Your task to perform on an android device: Open notification settings Image 0: 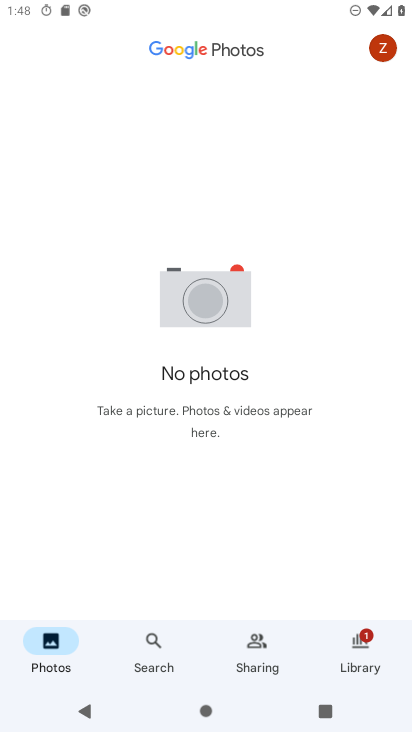
Step 0: press home button
Your task to perform on an android device: Open notification settings Image 1: 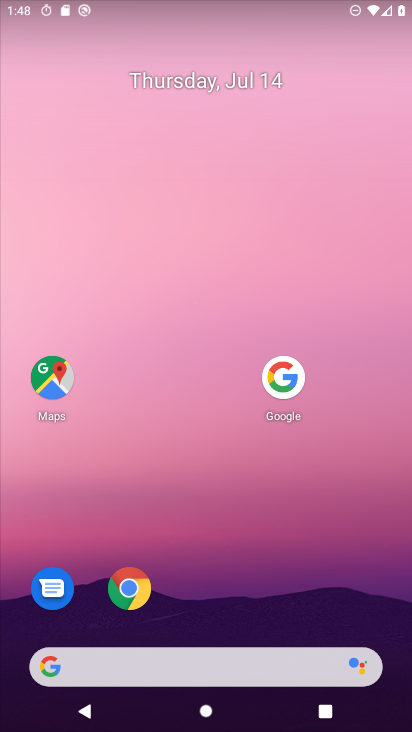
Step 1: drag from (220, 671) to (278, 97)
Your task to perform on an android device: Open notification settings Image 2: 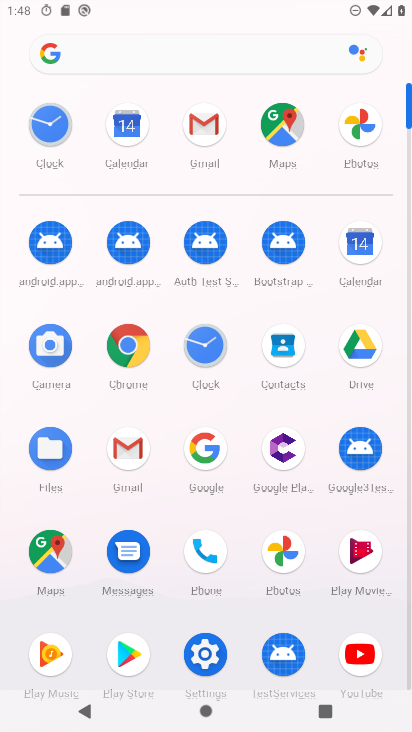
Step 2: click (205, 657)
Your task to perform on an android device: Open notification settings Image 3: 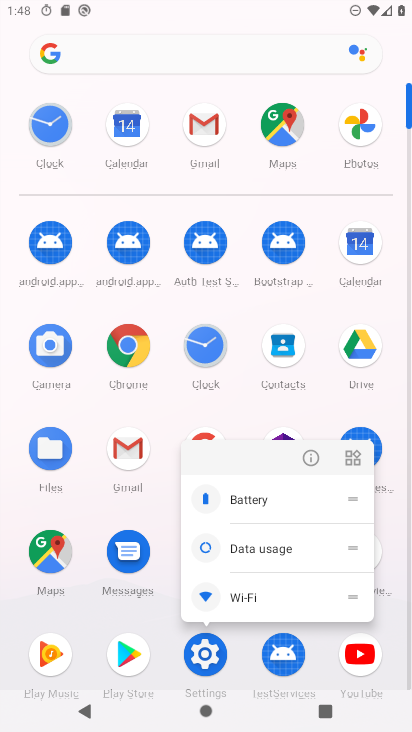
Step 3: click (205, 657)
Your task to perform on an android device: Open notification settings Image 4: 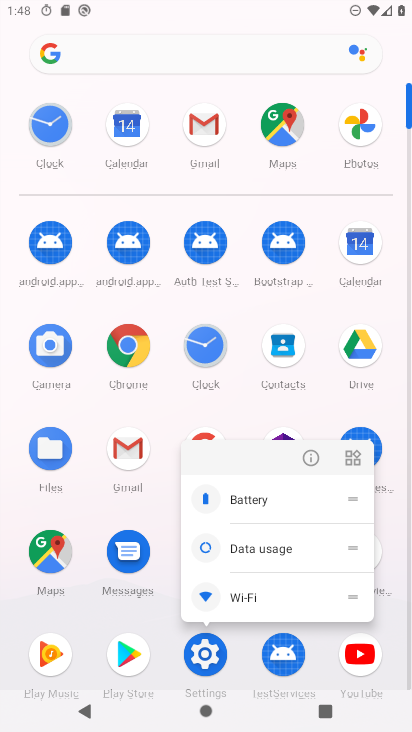
Step 4: click (207, 657)
Your task to perform on an android device: Open notification settings Image 5: 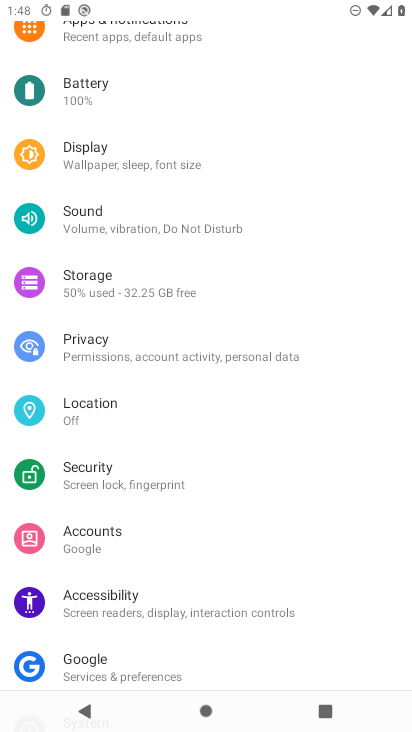
Step 5: drag from (211, 109) to (249, 561)
Your task to perform on an android device: Open notification settings Image 6: 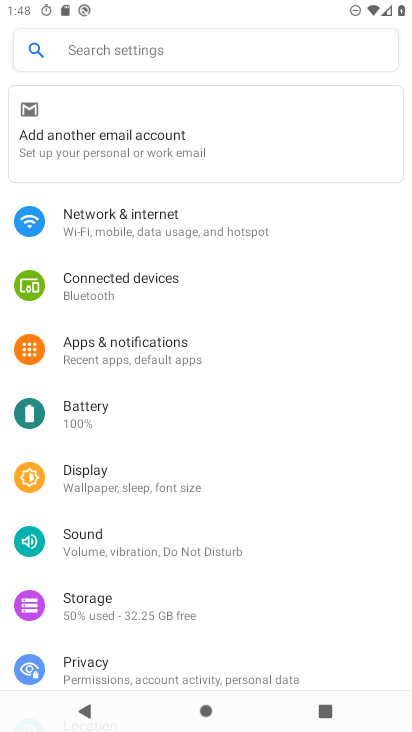
Step 6: click (135, 351)
Your task to perform on an android device: Open notification settings Image 7: 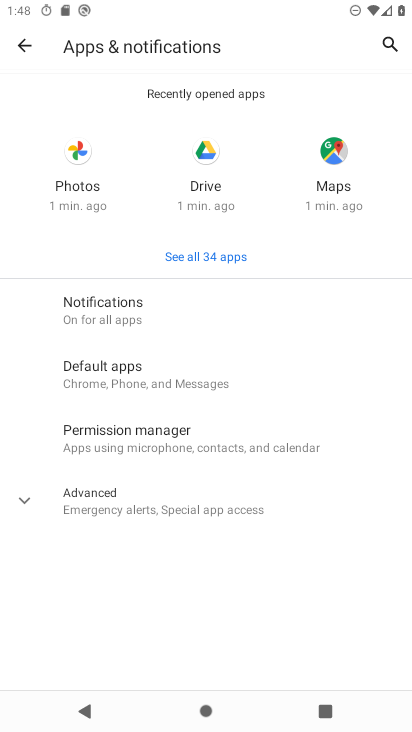
Step 7: click (106, 310)
Your task to perform on an android device: Open notification settings Image 8: 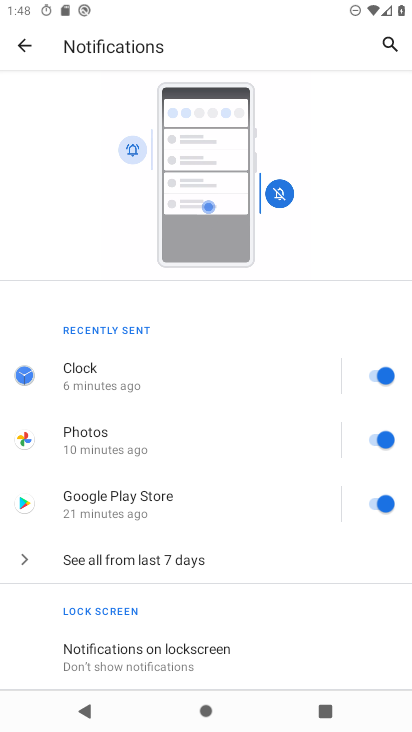
Step 8: task complete